Your task to perform on an android device: Open battery settings Image 0: 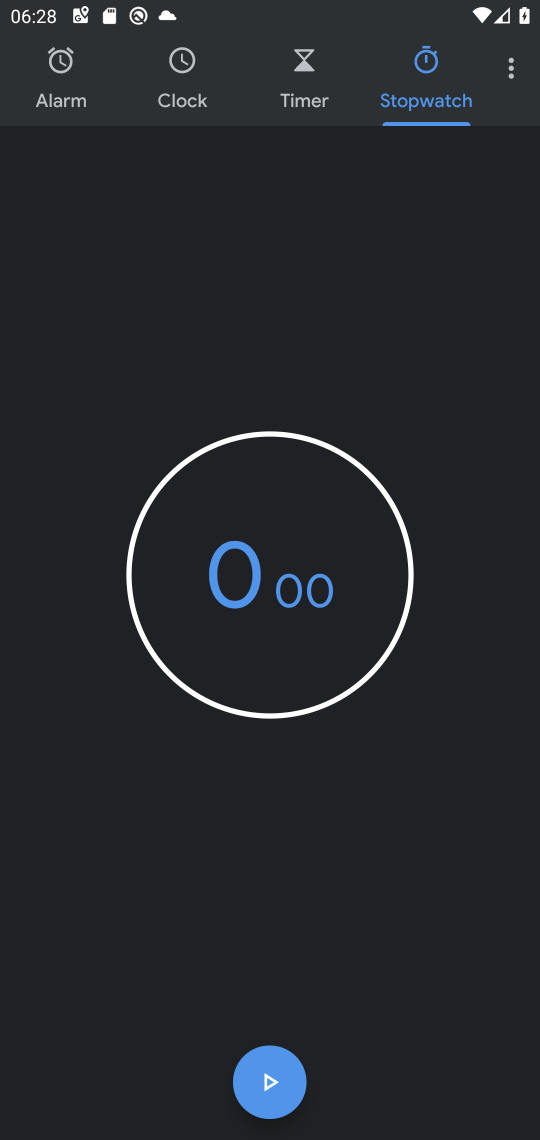
Step 0: press home button
Your task to perform on an android device: Open battery settings Image 1: 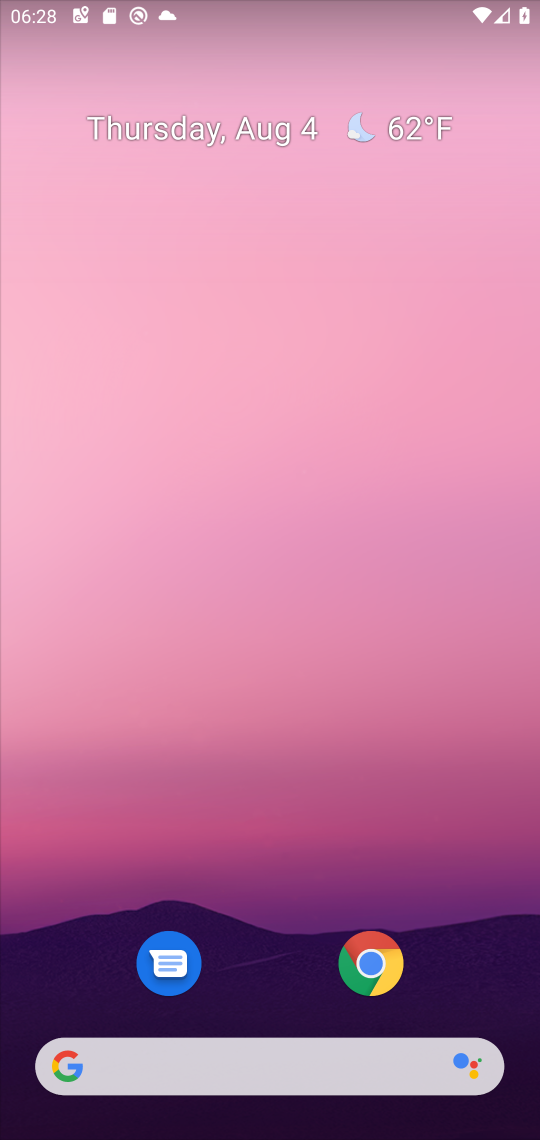
Step 1: drag from (270, 883) to (221, 160)
Your task to perform on an android device: Open battery settings Image 2: 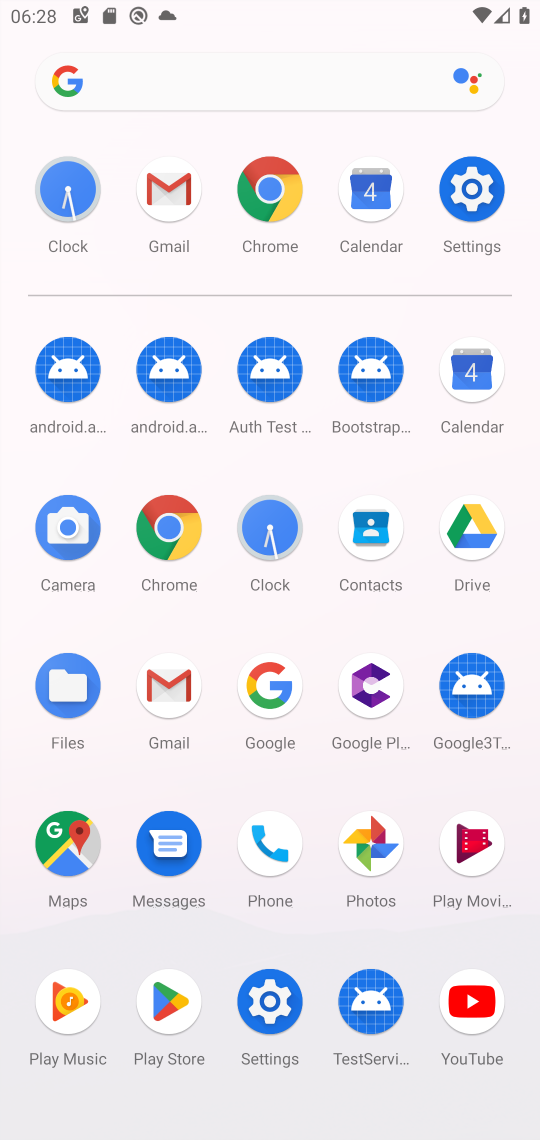
Step 2: click (473, 193)
Your task to perform on an android device: Open battery settings Image 3: 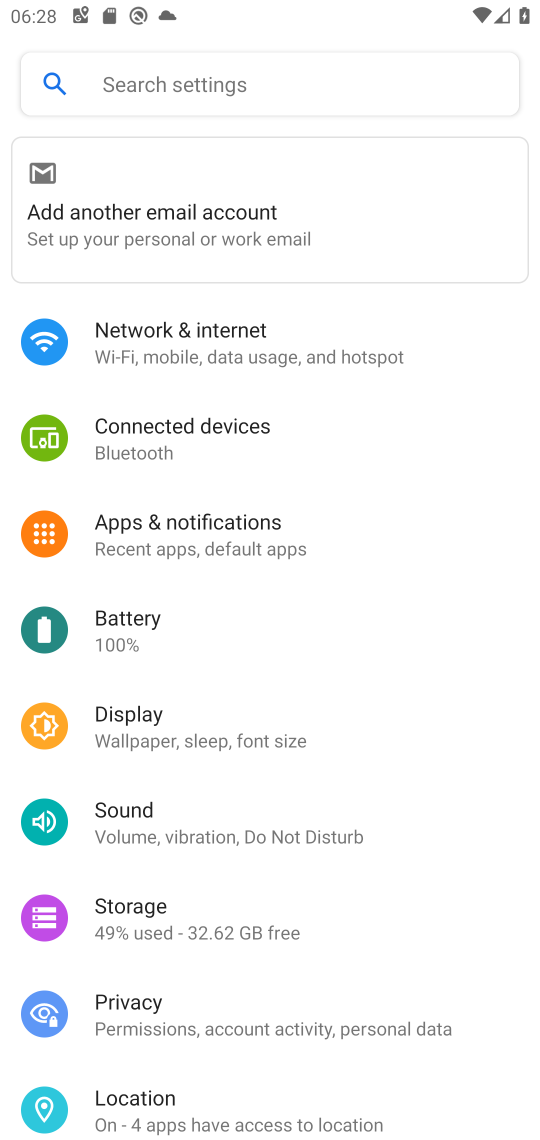
Step 3: click (132, 610)
Your task to perform on an android device: Open battery settings Image 4: 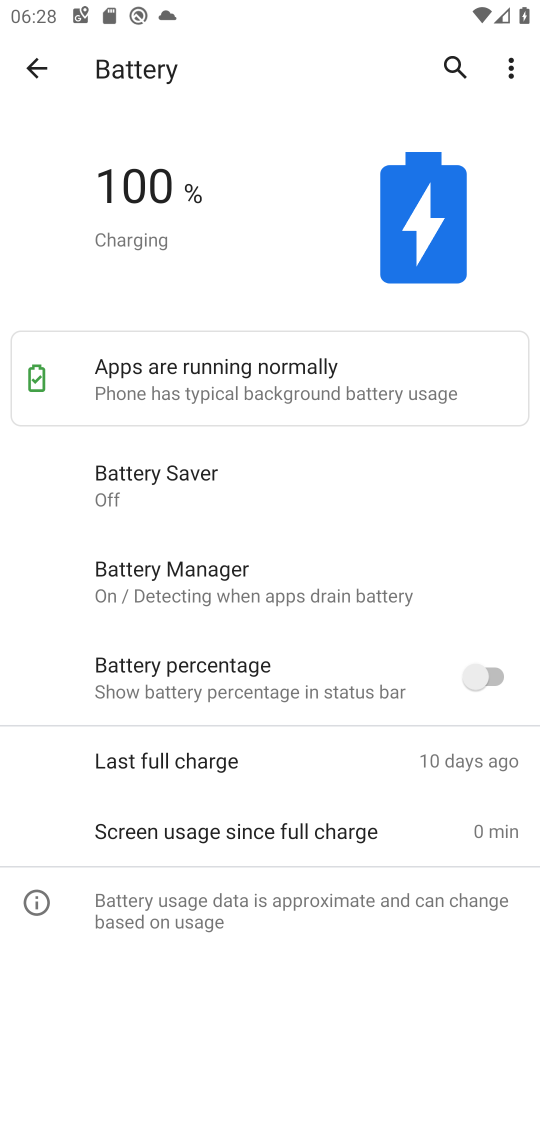
Step 4: task complete